Your task to perform on an android device: Open calendar and show me the second week of next month Image 0: 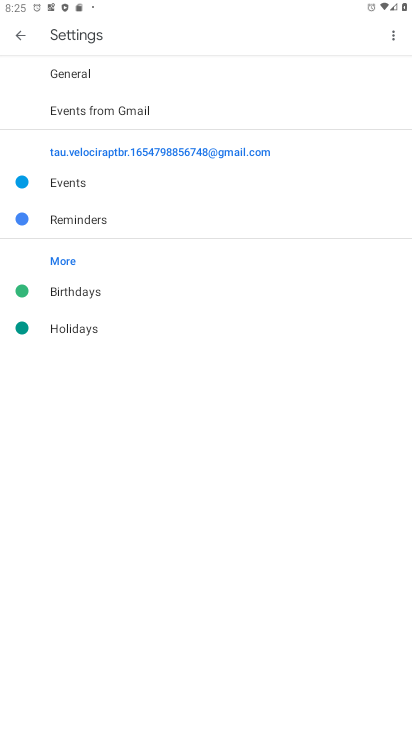
Step 0: press home button
Your task to perform on an android device: Open calendar and show me the second week of next month Image 1: 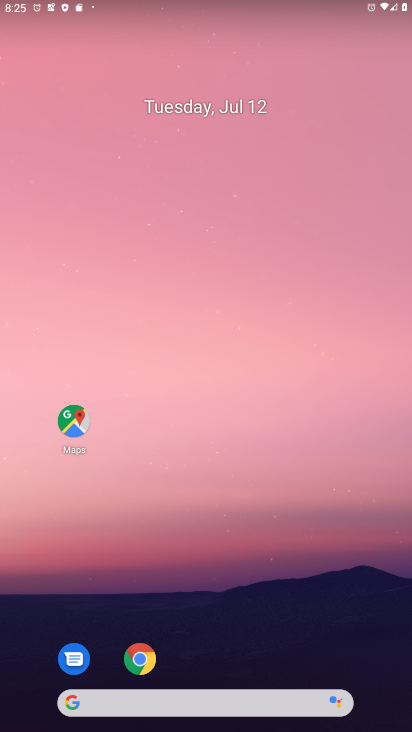
Step 1: drag from (199, 699) to (239, 286)
Your task to perform on an android device: Open calendar and show me the second week of next month Image 2: 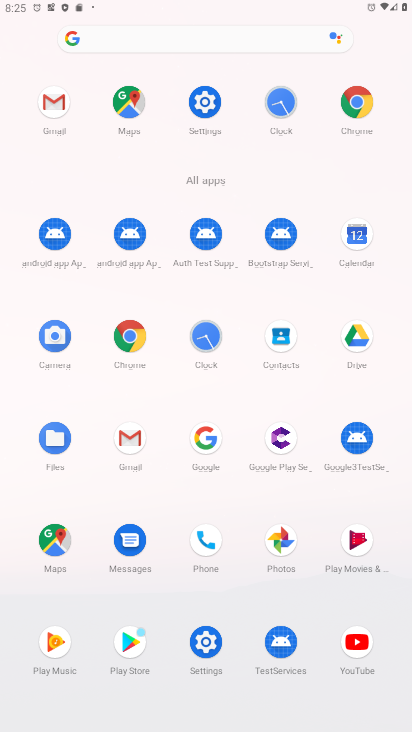
Step 2: click (360, 232)
Your task to perform on an android device: Open calendar and show me the second week of next month Image 3: 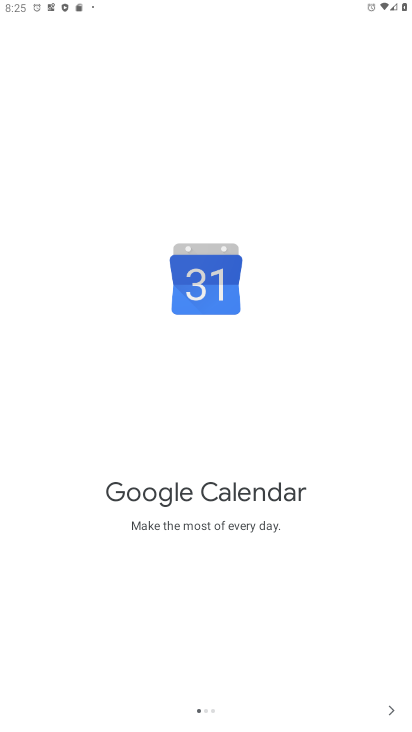
Step 3: click (392, 707)
Your task to perform on an android device: Open calendar and show me the second week of next month Image 4: 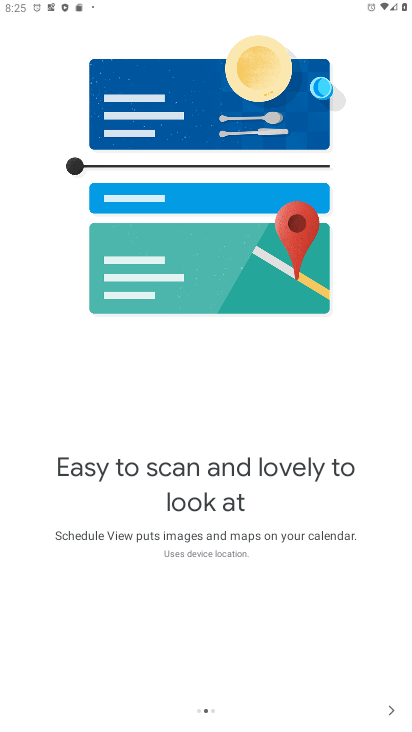
Step 4: click (392, 707)
Your task to perform on an android device: Open calendar and show me the second week of next month Image 5: 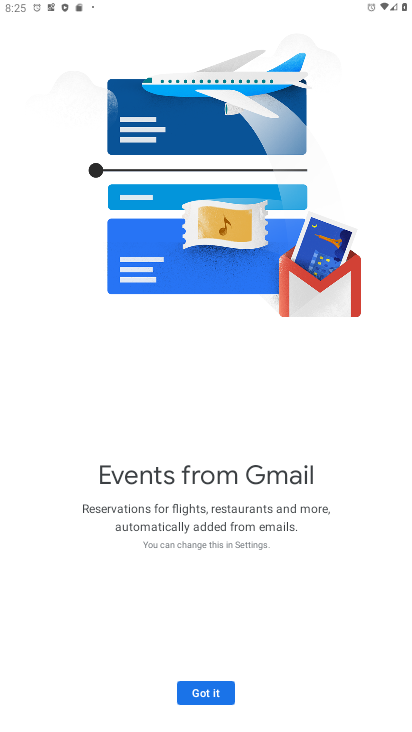
Step 5: click (208, 696)
Your task to perform on an android device: Open calendar and show me the second week of next month Image 6: 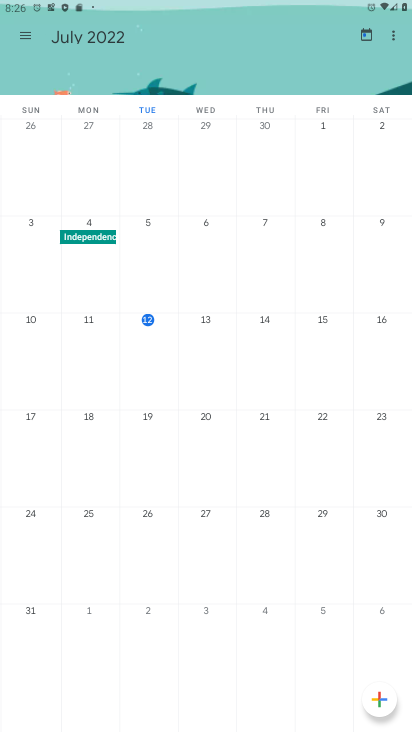
Step 6: drag from (370, 453) to (9, 504)
Your task to perform on an android device: Open calendar and show me the second week of next month Image 7: 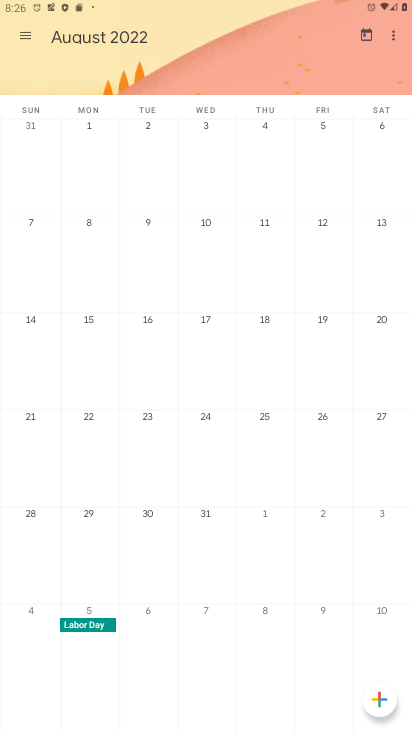
Step 7: click (100, 239)
Your task to perform on an android device: Open calendar and show me the second week of next month Image 8: 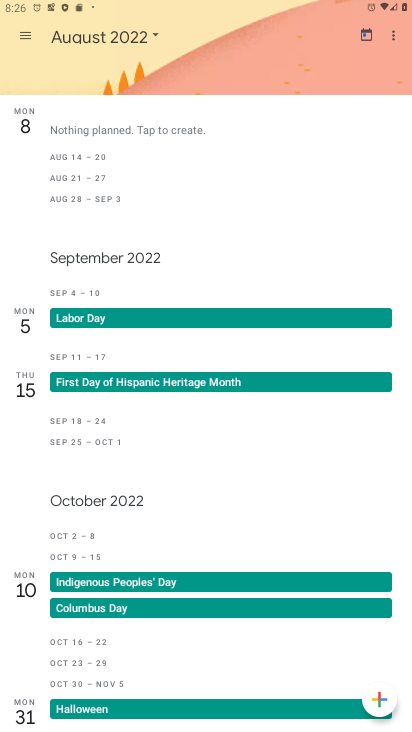
Step 8: click (30, 30)
Your task to perform on an android device: Open calendar and show me the second week of next month Image 9: 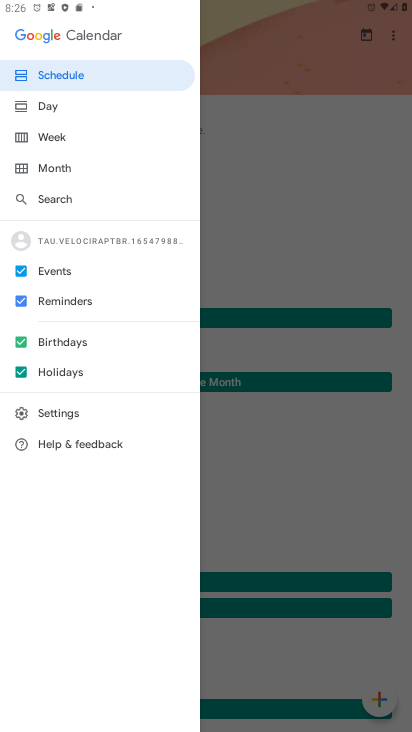
Step 9: click (44, 135)
Your task to perform on an android device: Open calendar and show me the second week of next month Image 10: 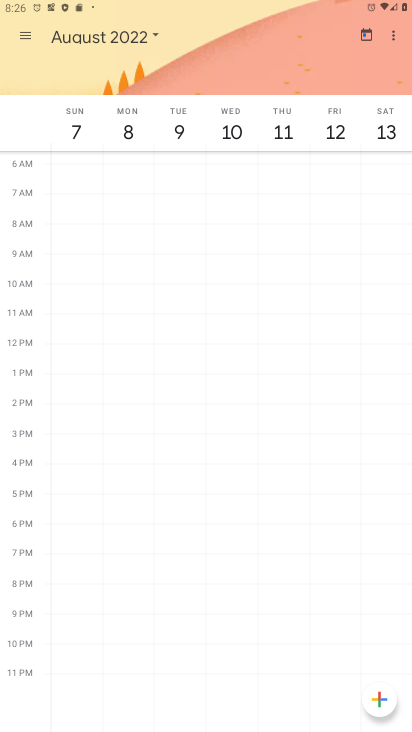
Step 10: task complete